Your task to perform on an android device: make emails show in primary in the gmail app Image 0: 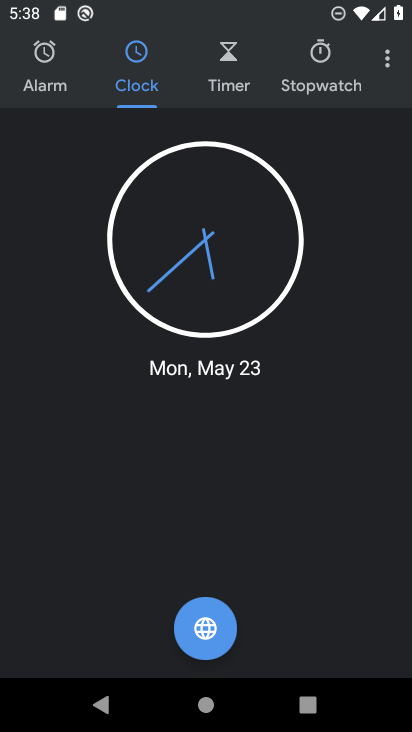
Step 0: press home button
Your task to perform on an android device: make emails show in primary in the gmail app Image 1: 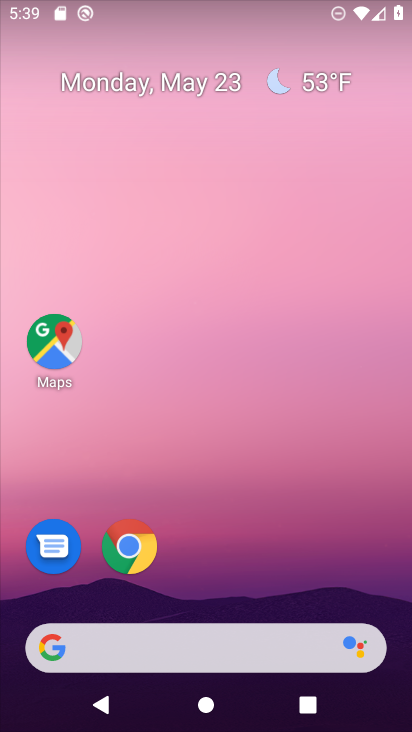
Step 1: click (242, 27)
Your task to perform on an android device: make emails show in primary in the gmail app Image 2: 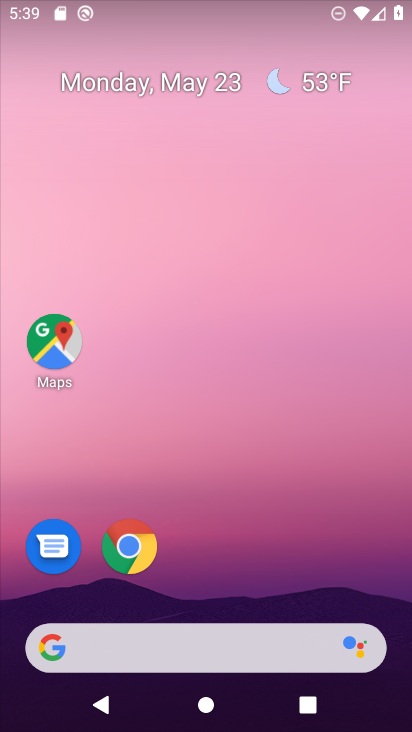
Step 2: drag from (255, 521) to (240, 25)
Your task to perform on an android device: make emails show in primary in the gmail app Image 3: 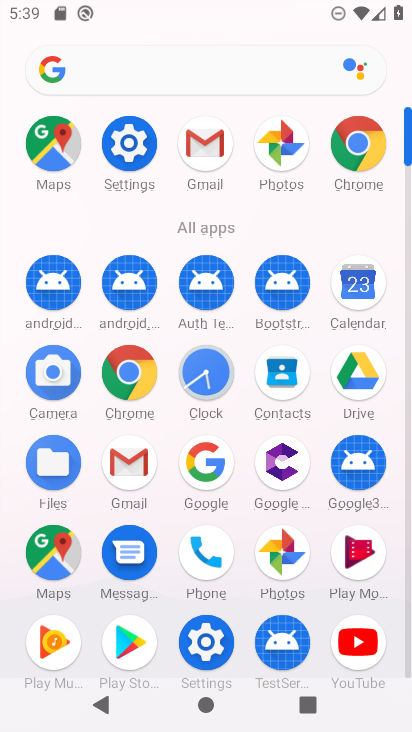
Step 3: click (197, 145)
Your task to perform on an android device: make emails show in primary in the gmail app Image 4: 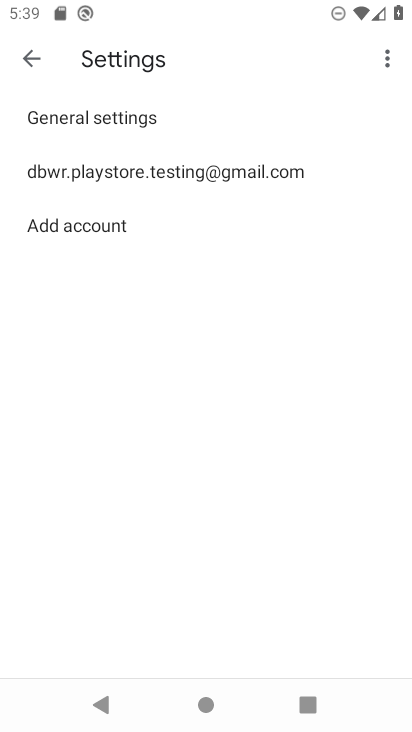
Step 4: click (163, 167)
Your task to perform on an android device: make emails show in primary in the gmail app Image 5: 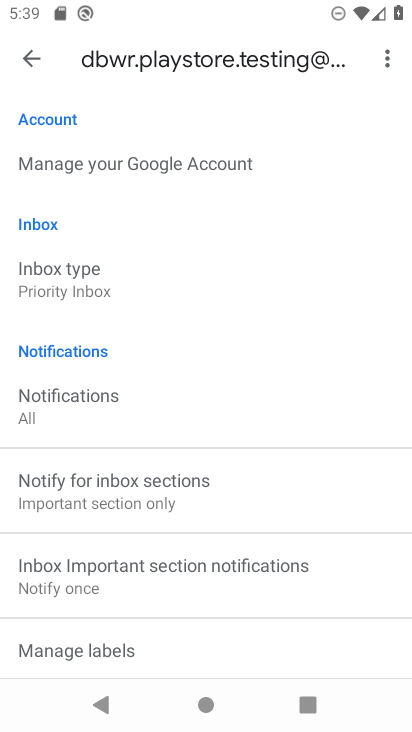
Step 5: click (55, 282)
Your task to perform on an android device: make emails show in primary in the gmail app Image 6: 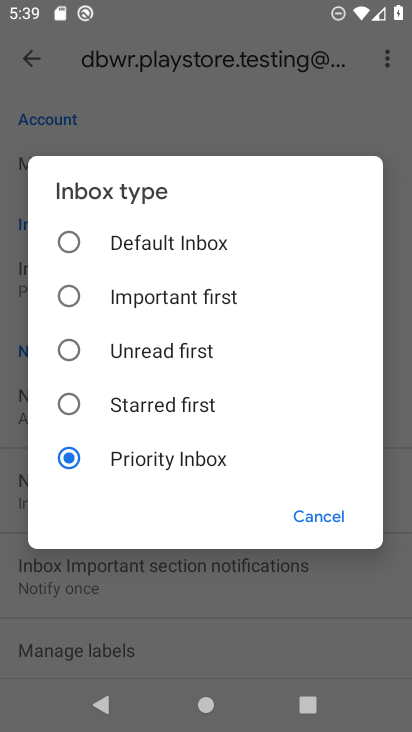
Step 6: click (72, 242)
Your task to perform on an android device: make emails show in primary in the gmail app Image 7: 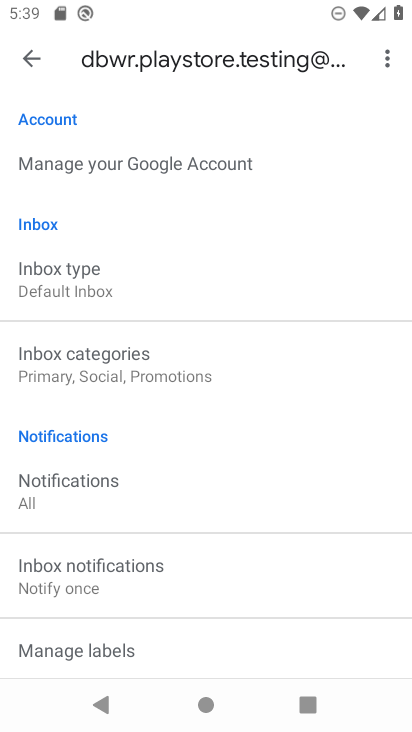
Step 7: click (114, 381)
Your task to perform on an android device: make emails show in primary in the gmail app Image 8: 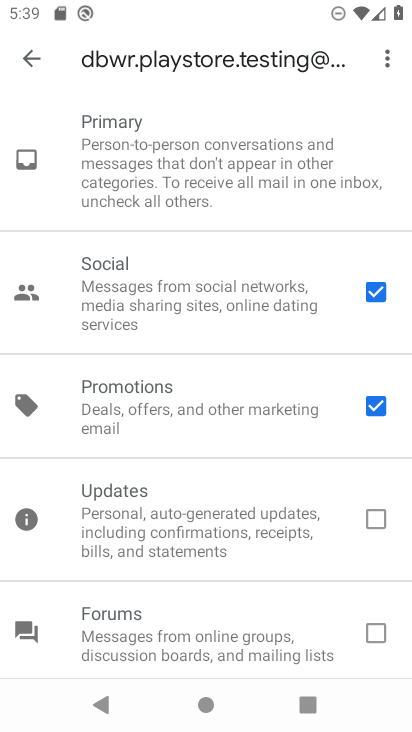
Step 8: click (380, 292)
Your task to perform on an android device: make emails show in primary in the gmail app Image 9: 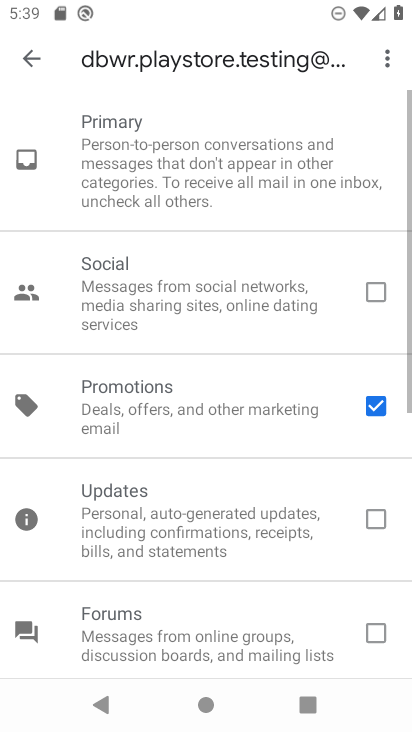
Step 9: click (376, 398)
Your task to perform on an android device: make emails show in primary in the gmail app Image 10: 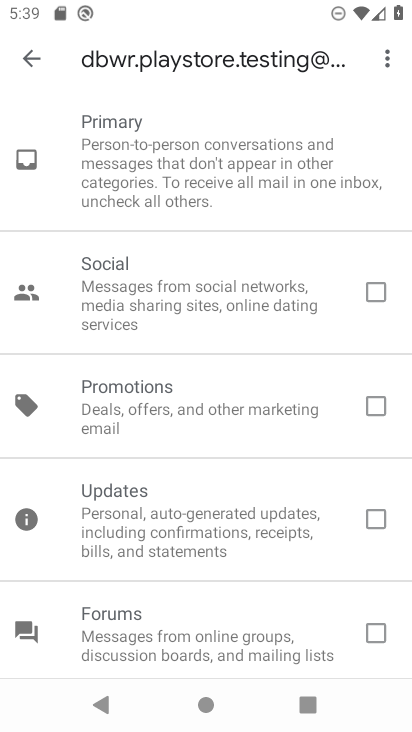
Step 10: task complete